Your task to perform on an android device: empty trash in the gmail app Image 0: 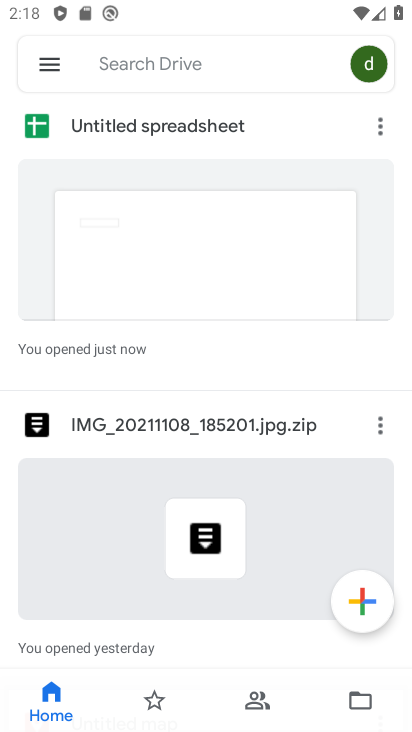
Step 0: press home button
Your task to perform on an android device: empty trash in the gmail app Image 1: 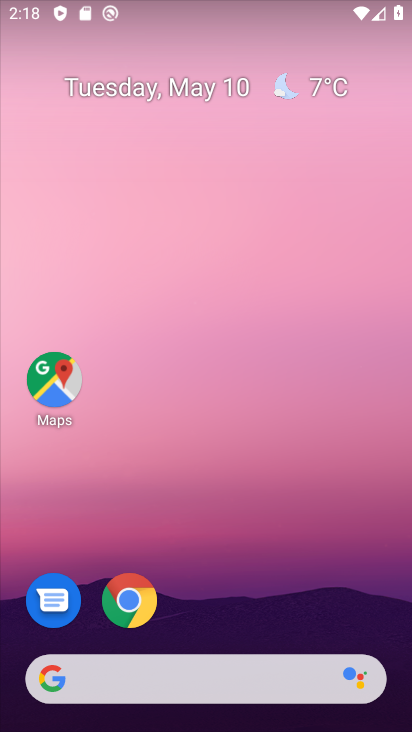
Step 1: drag from (230, 660) to (257, 72)
Your task to perform on an android device: empty trash in the gmail app Image 2: 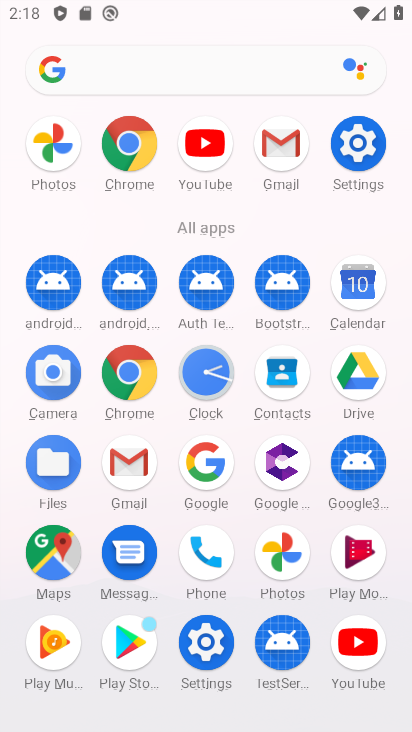
Step 2: click (137, 478)
Your task to perform on an android device: empty trash in the gmail app Image 3: 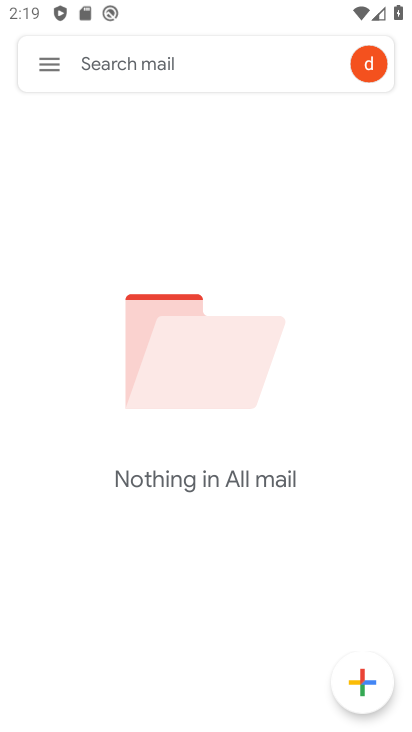
Step 3: click (50, 60)
Your task to perform on an android device: empty trash in the gmail app Image 4: 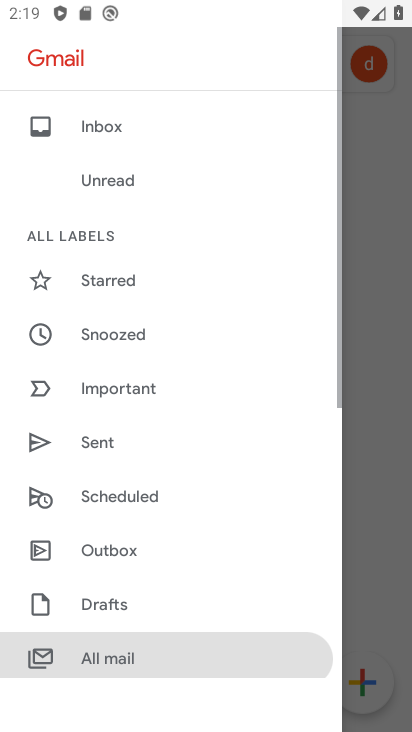
Step 4: drag from (126, 618) to (126, 187)
Your task to perform on an android device: empty trash in the gmail app Image 5: 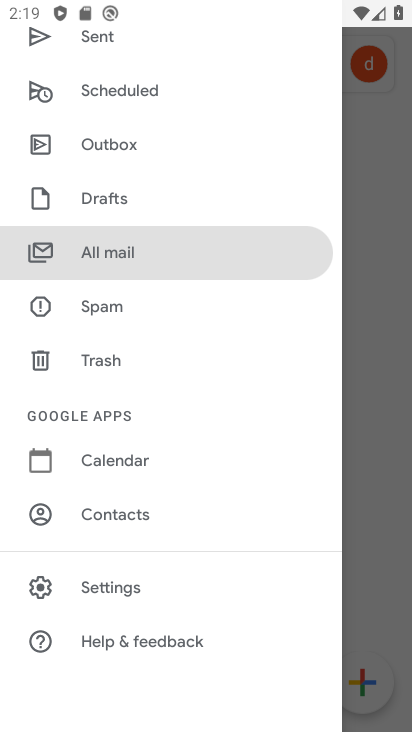
Step 5: click (119, 347)
Your task to perform on an android device: empty trash in the gmail app Image 6: 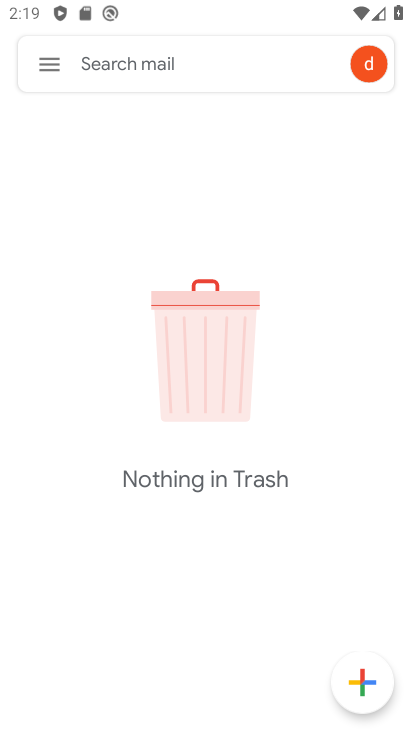
Step 6: task complete